Your task to perform on an android device: turn off notifications in google photos Image 0: 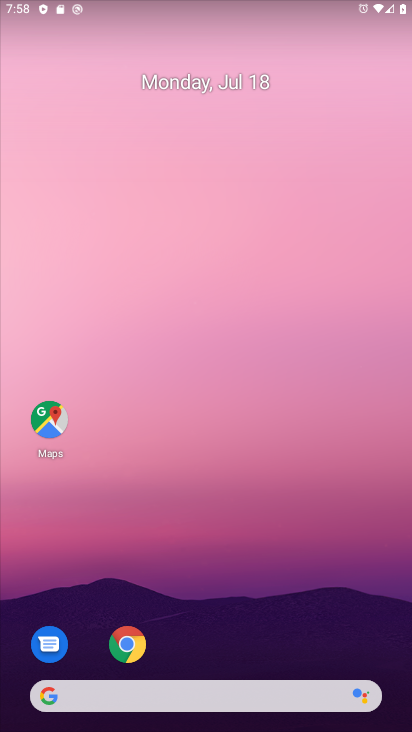
Step 0: press home button
Your task to perform on an android device: turn off notifications in google photos Image 1: 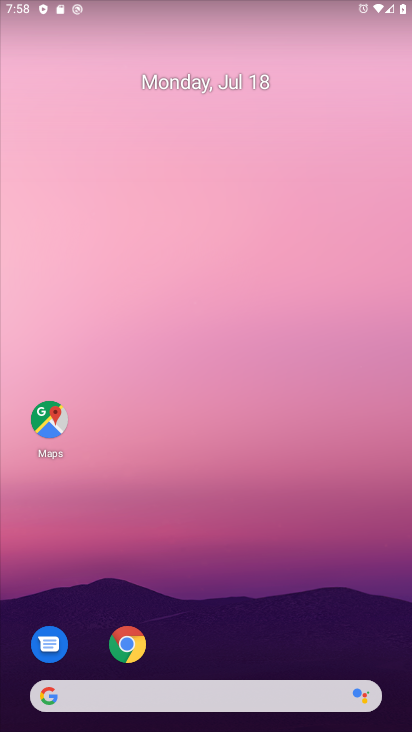
Step 1: drag from (237, 656) to (260, 60)
Your task to perform on an android device: turn off notifications in google photos Image 2: 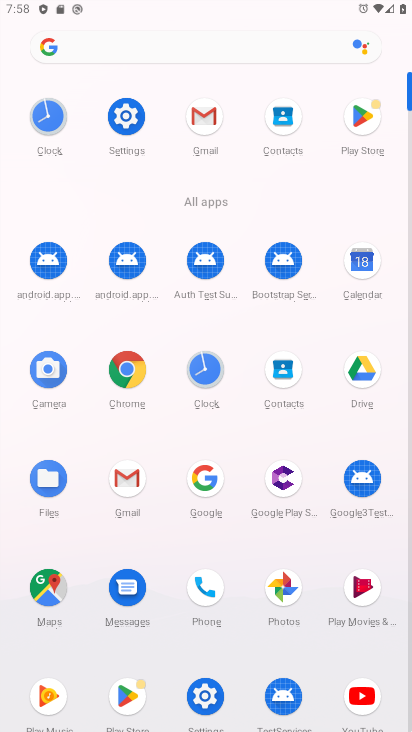
Step 2: click (284, 580)
Your task to perform on an android device: turn off notifications in google photos Image 3: 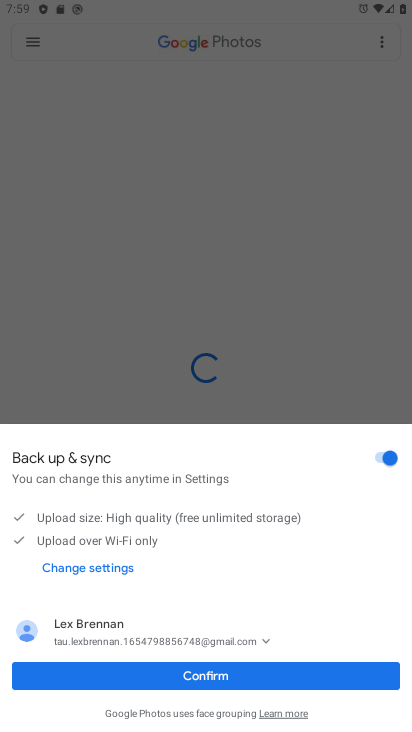
Step 3: click (199, 676)
Your task to perform on an android device: turn off notifications in google photos Image 4: 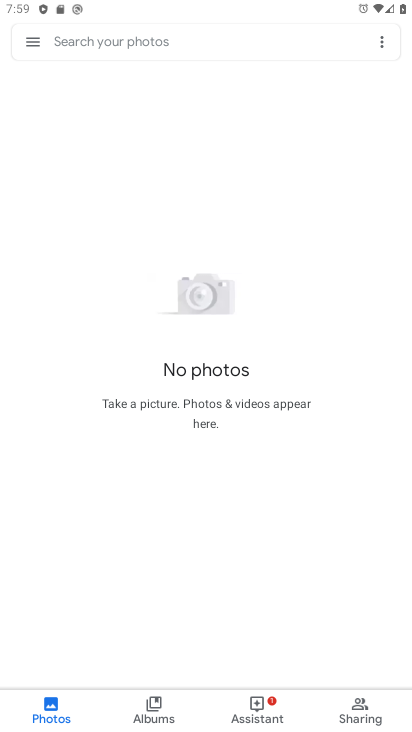
Step 4: click (33, 48)
Your task to perform on an android device: turn off notifications in google photos Image 5: 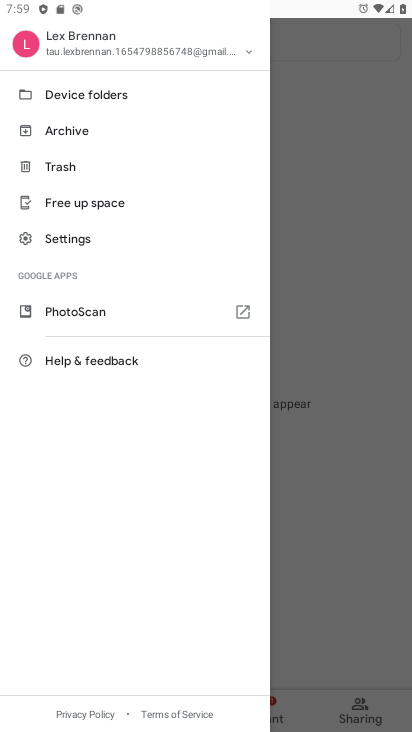
Step 5: click (91, 233)
Your task to perform on an android device: turn off notifications in google photos Image 6: 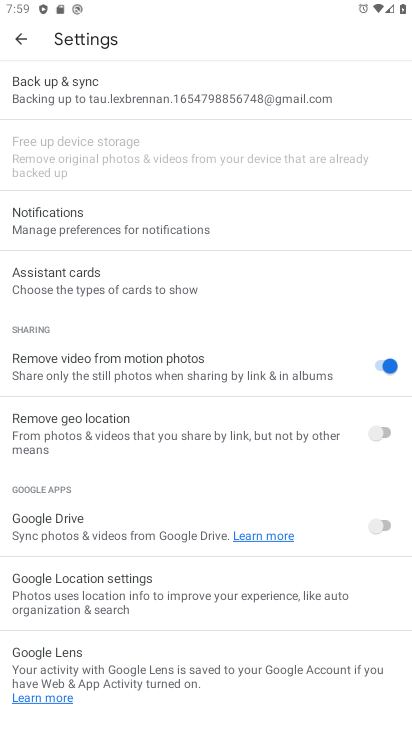
Step 6: click (100, 226)
Your task to perform on an android device: turn off notifications in google photos Image 7: 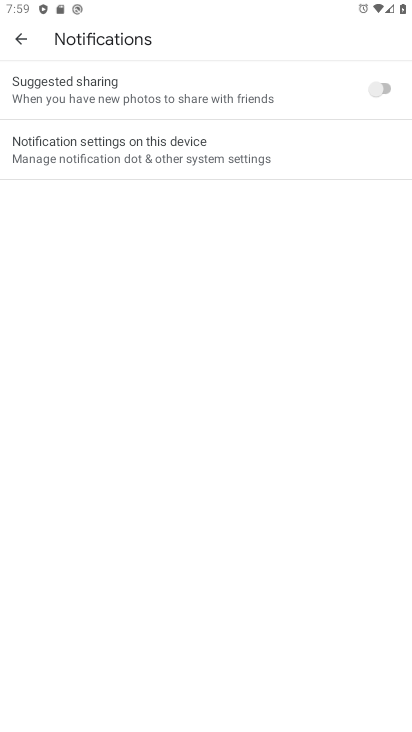
Step 7: click (134, 140)
Your task to perform on an android device: turn off notifications in google photos Image 8: 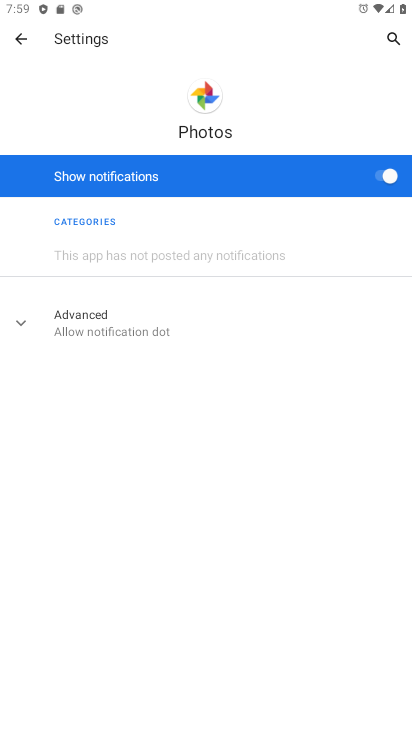
Step 8: click (377, 177)
Your task to perform on an android device: turn off notifications in google photos Image 9: 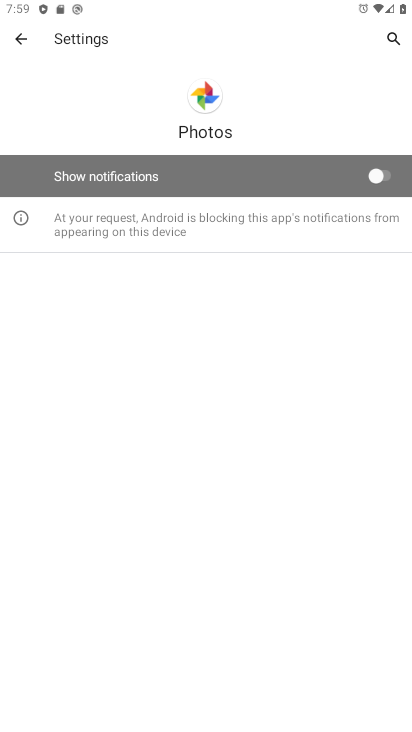
Step 9: task complete